Your task to perform on an android device: Add razer deathadder to the cart on newegg Image 0: 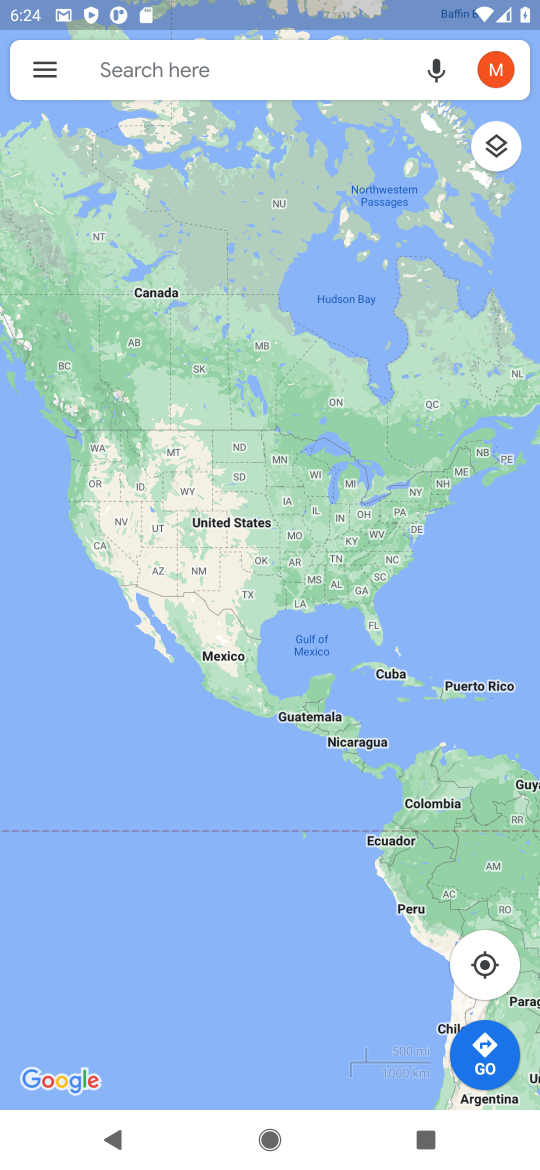
Step 0: press home button
Your task to perform on an android device: Add razer deathadder to the cart on newegg Image 1: 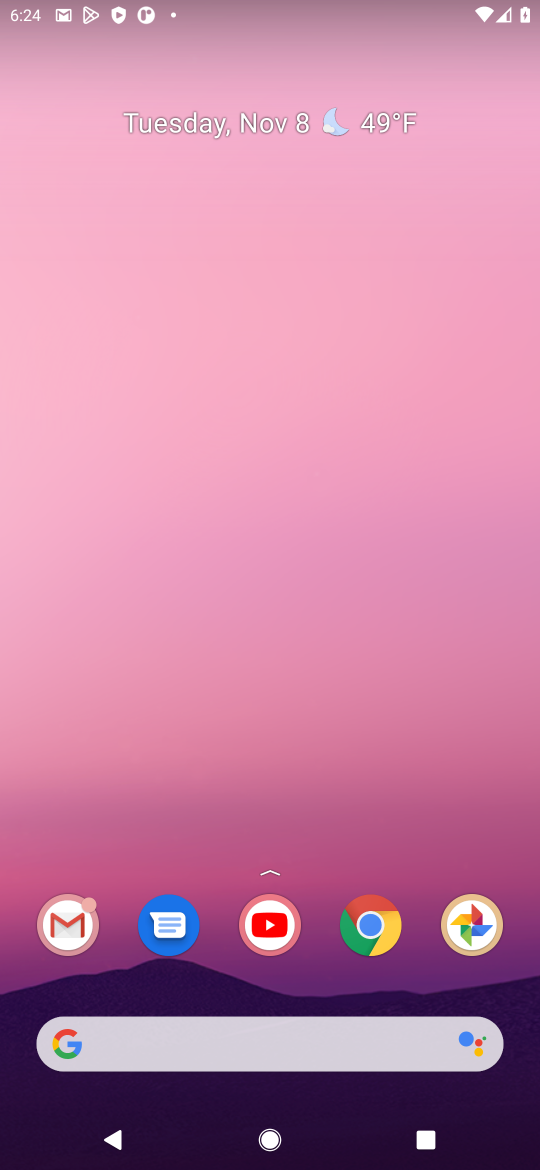
Step 1: click (371, 925)
Your task to perform on an android device: Add razer deathadder to the cart on newegg Image 2: 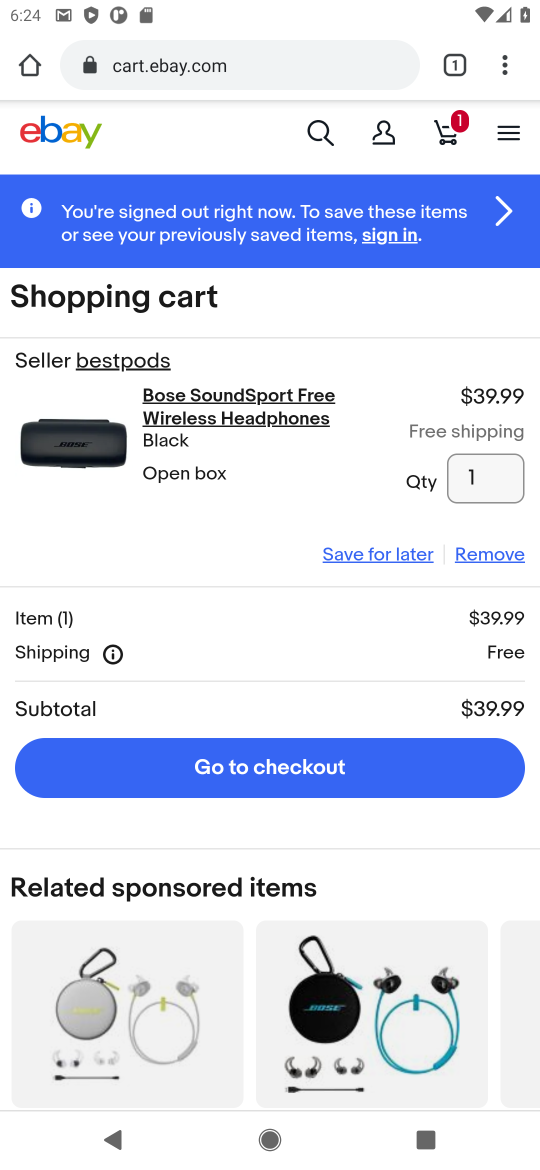
Step 2: click (239, 63)
Your task to perform on an android device: Add razer deathadder to the cart on newegg Image 3: 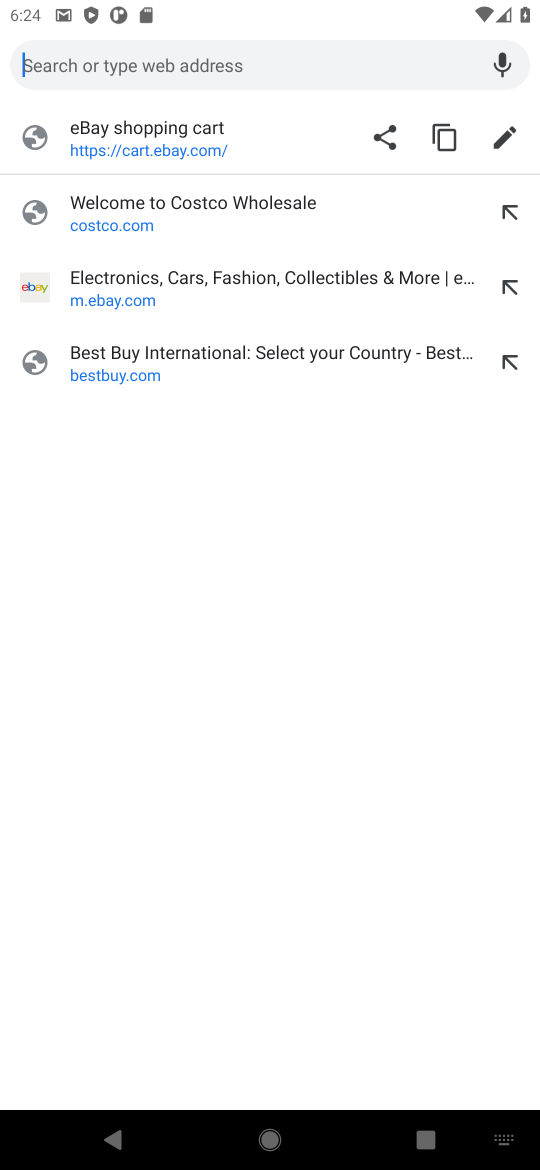
Step 3: type "newegg"
Your task to perform on an android device: Add razer deathadder to the cart on newegg Image 4: 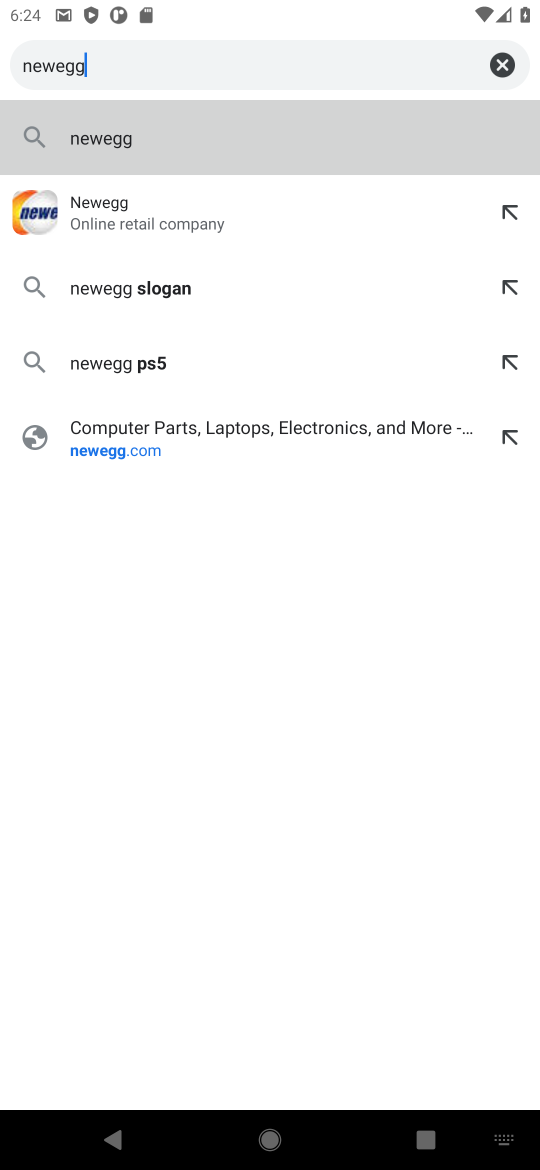
Step 4: click (99, 134)
Your task to perform on an android device: Add razer deathadder to the cart on newegg Image 5: 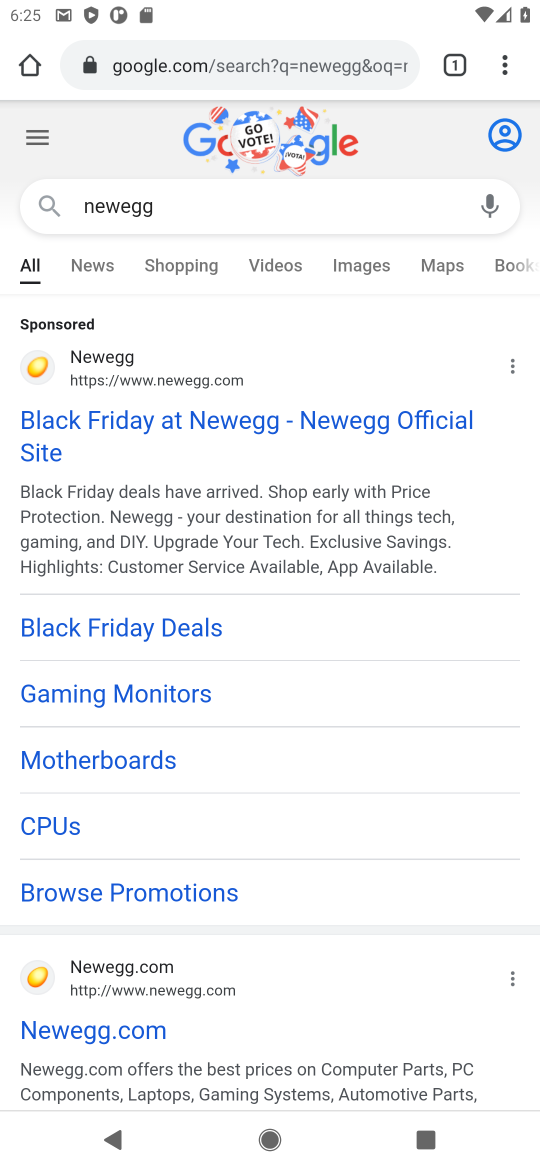
Step 5: click (121, 421)
Your task to perform on an android device: Add razer deathadder to the cart on newegg Image 6: 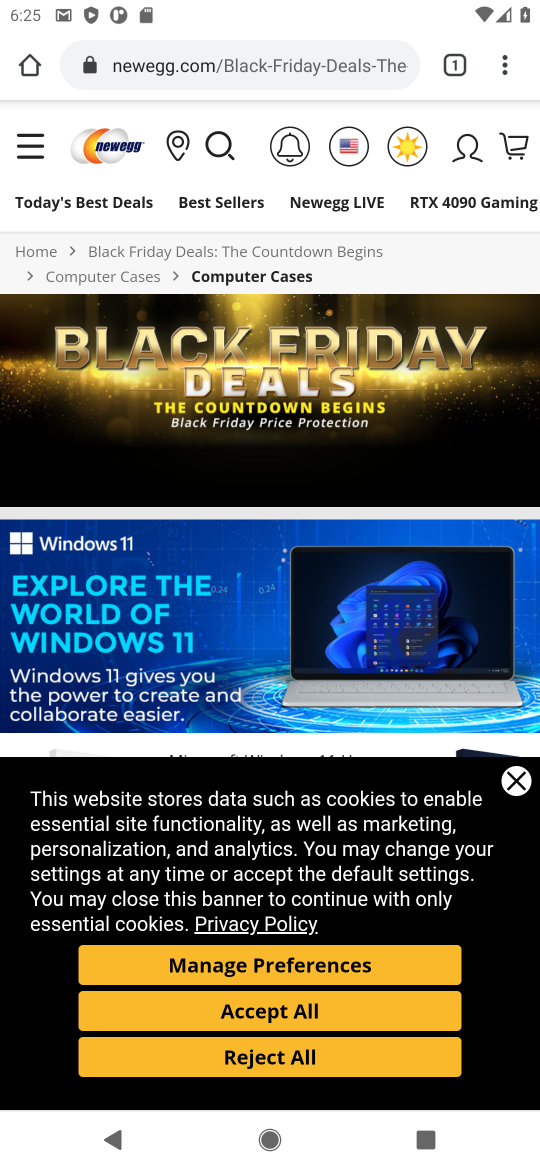
Step 6: click (225, 145)
Your task to perform on an android device: Add razer deathadder to the cart on newegg Image 7: 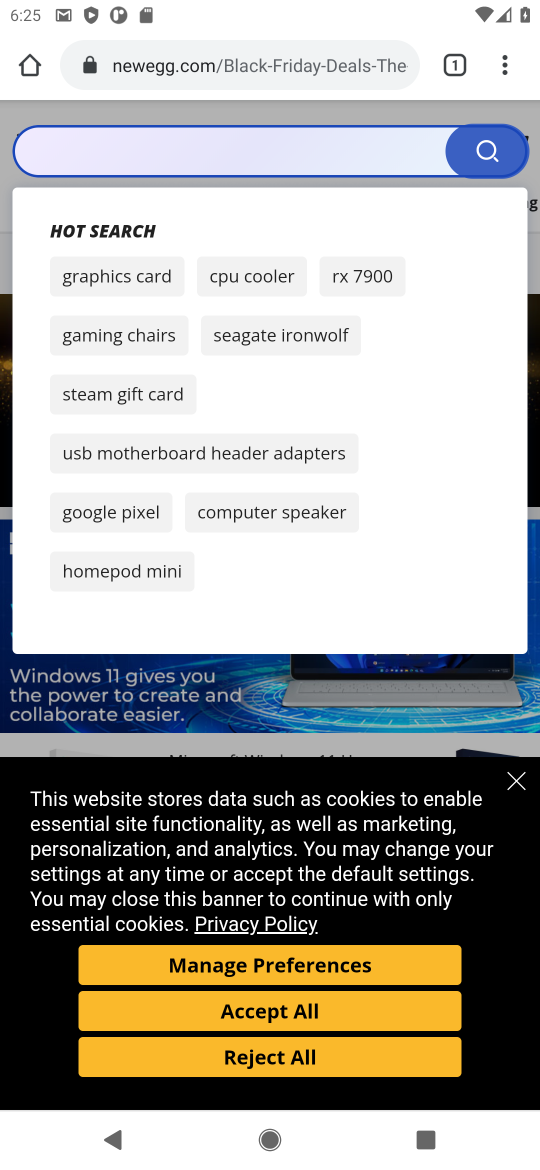
Step 7: click (241, 156)
Your task to perform on an android device: Add razer deathadder to the cart on newegg Image 8: 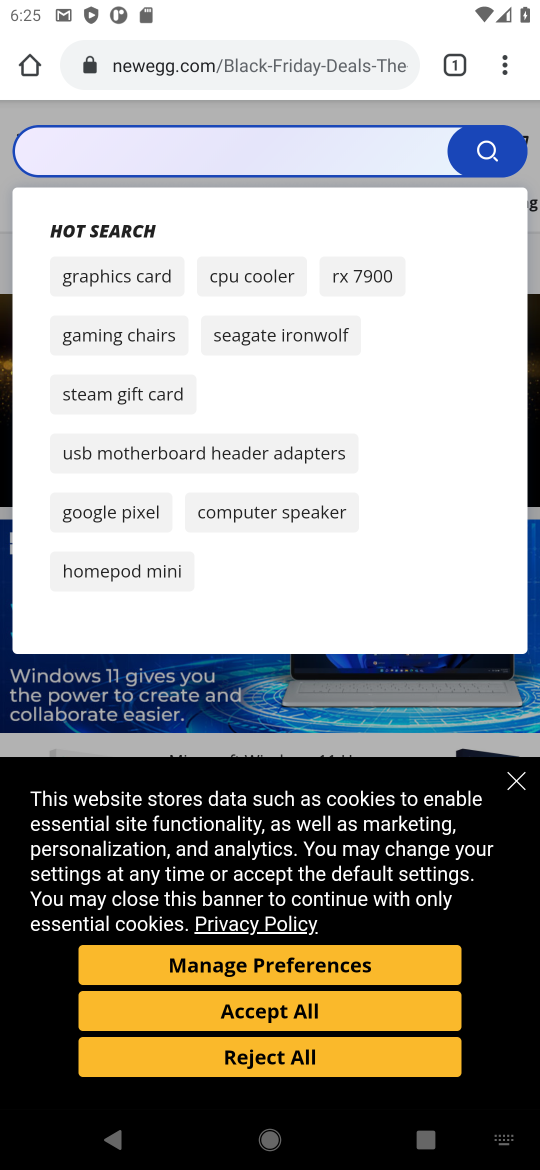
Step 8: type "razer deathadder"
Your task to perform on an android device: Add razer deathadder to the cart on newegg Image 9: 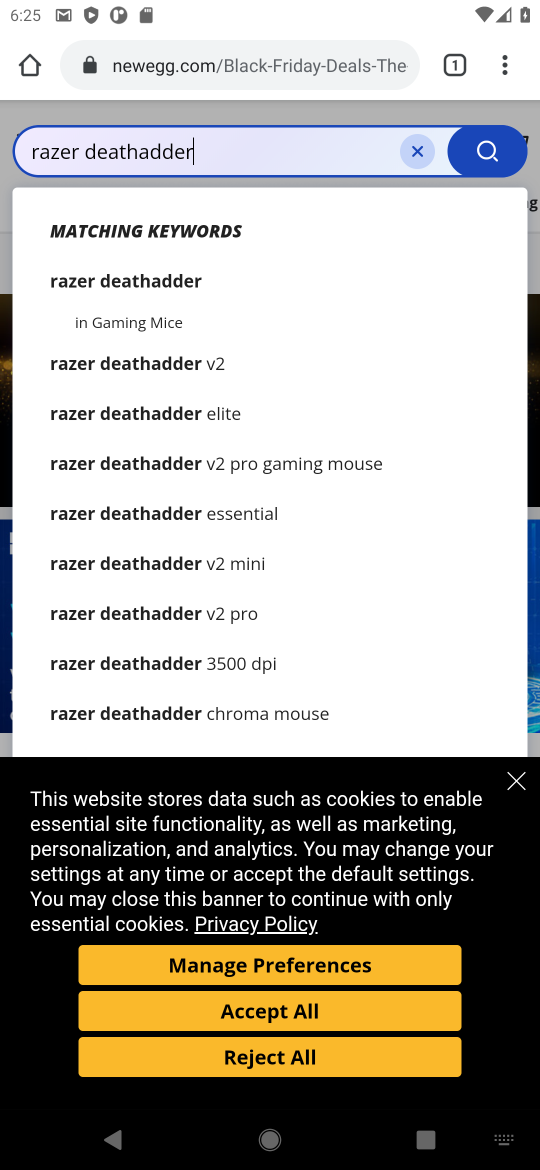
Step 9: press enter
Your task to perform on an android device: Add razer deathadder to the cart on newegg Image 10: 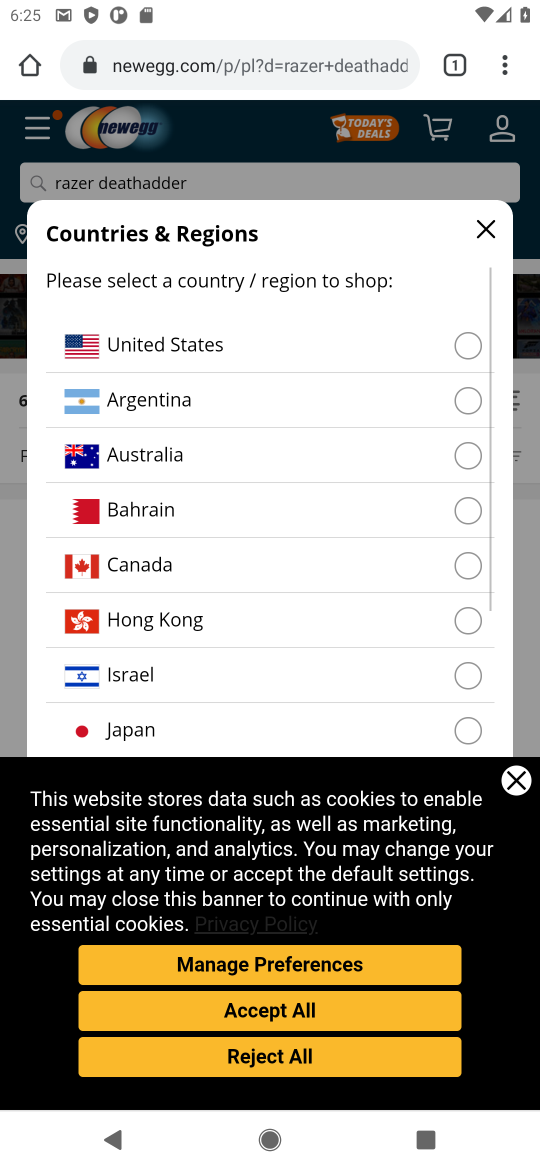
Step 10: click (489, 228)
Your task to perform on an android device: Add razer deathadder to the cart on newegg Image 11: 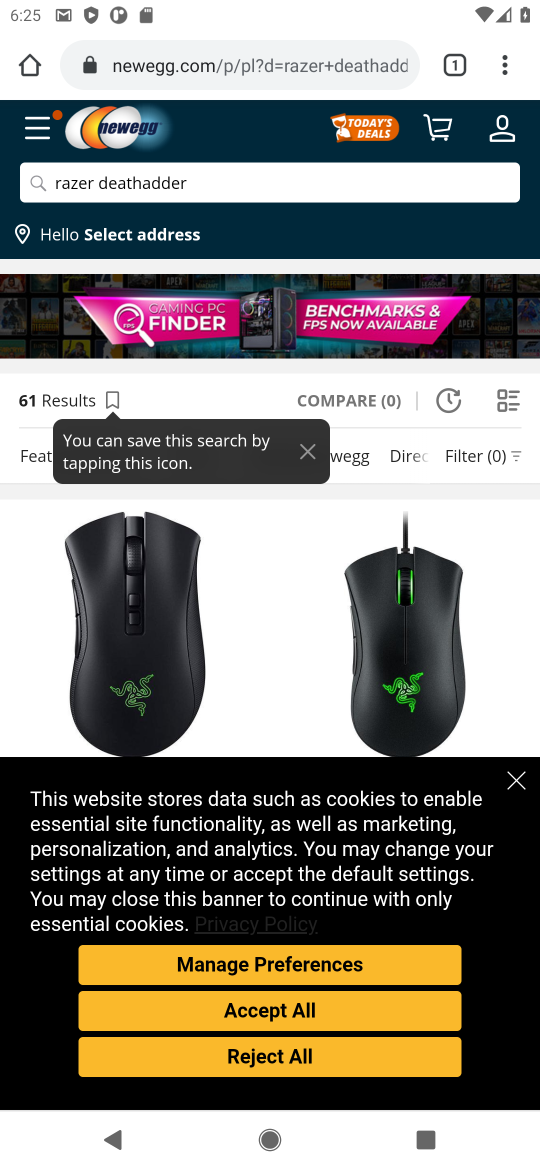
Step 11: click (519, 784)
Your task to perform on an android device: Add razer deathadder to the cart on newegg Image 12: 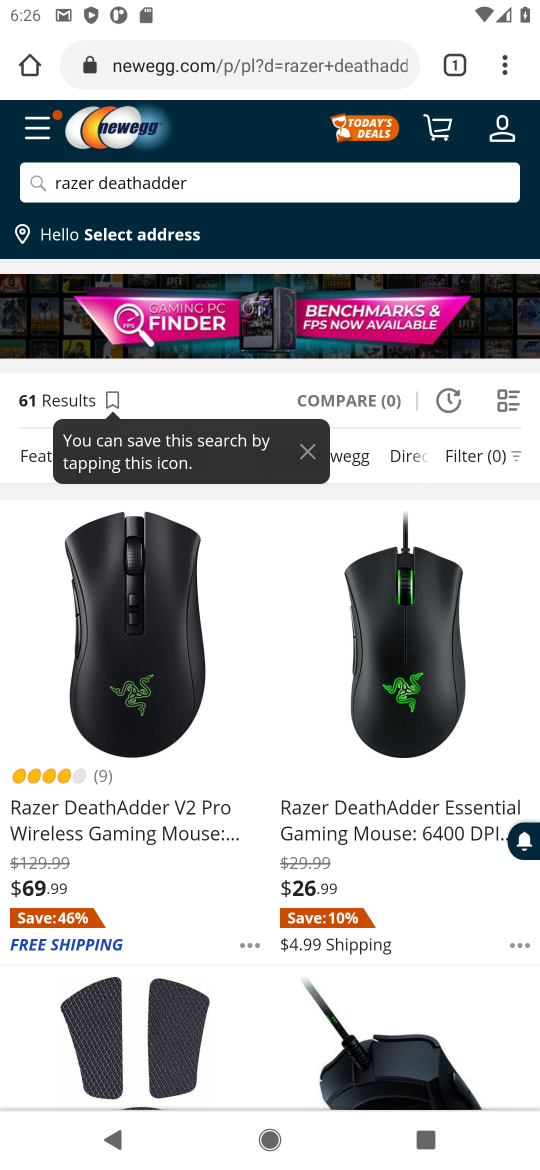
Step 12: click (176, 747)
Your task to perform on an android device: Add razer deathadder to the cart on newegg Image 13: 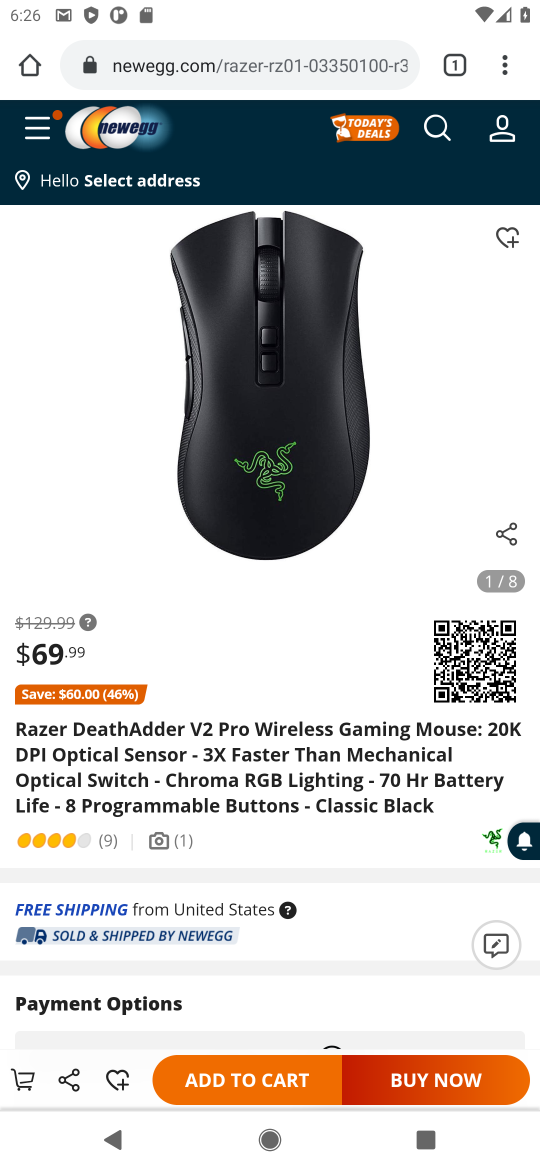
Step 13: click (256, 1076)
Your task to perform on an android device: Add razer deathadder to the cart on newegg Image 14: 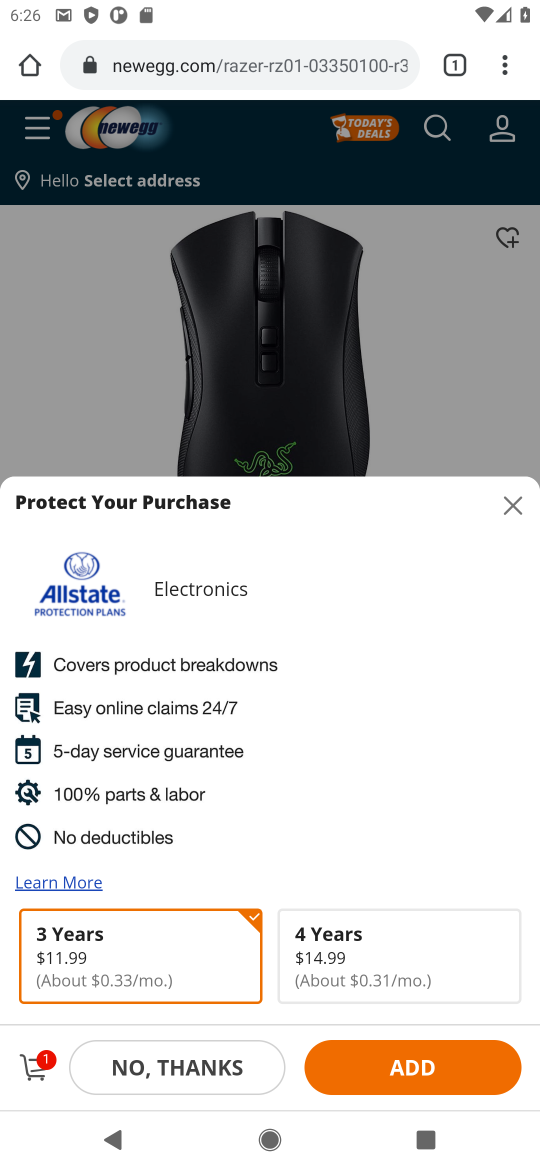
Step 14: task complete